Your task to perform on an android device: Open eBay Image 0: 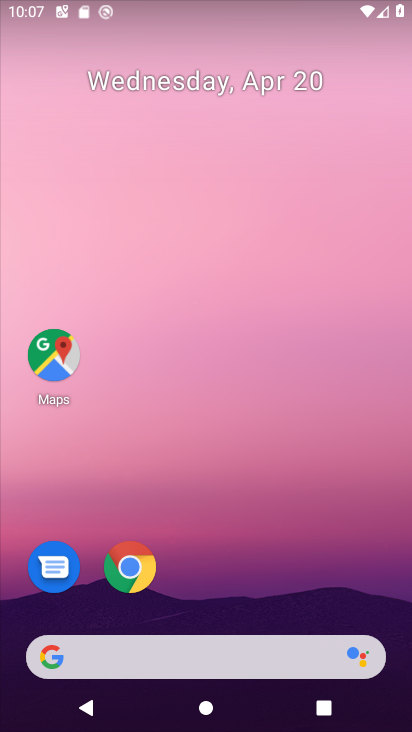
Step 0: drag from (332, 584) to (311, 177)
Your task to perform on an android device: Open eBay Image 1: 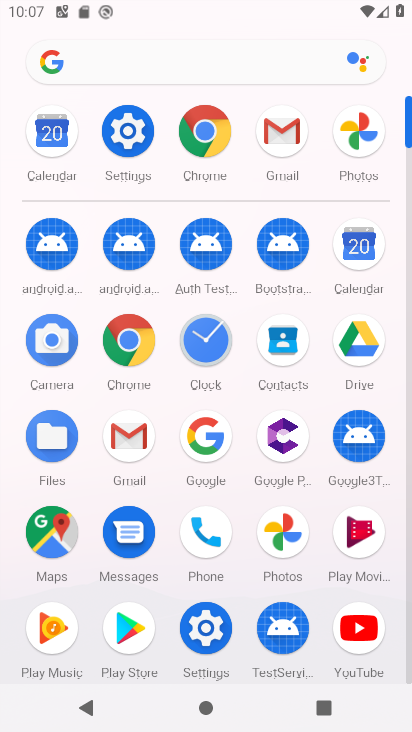
Step 1: click (130, 351)
Your task to perform on an android device: Open eBay Image 2: 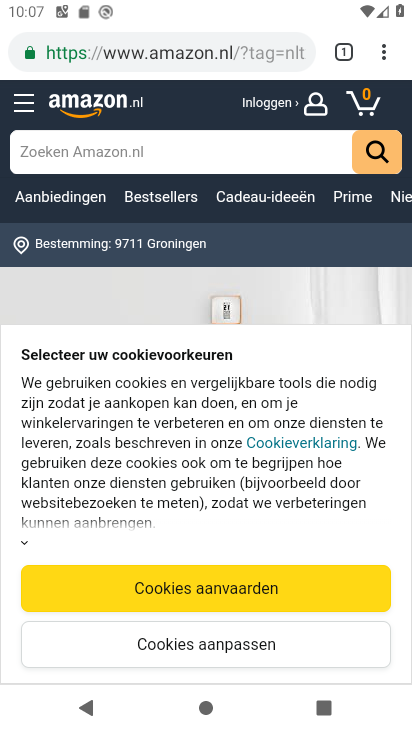
Step 2: press back button
Your task to perform on an android device: Open eBay Image 3: 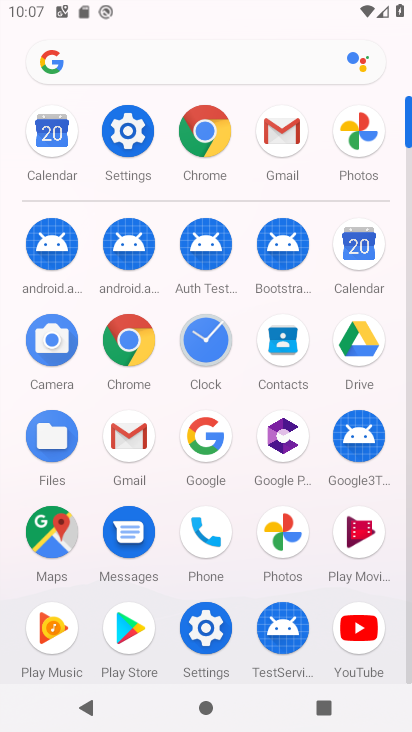
Step 3: click (104, 339)
Your task to perform on an android device: Open eBay Image 4: 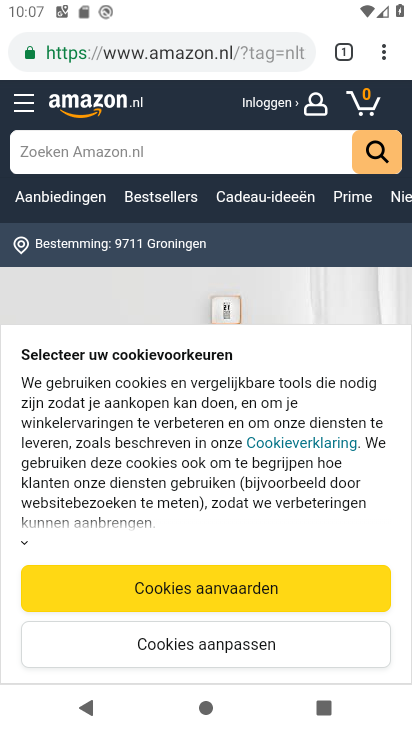
Step 4: click (260, 47)
Your task to perform on an android device: Open eBay Image 5: 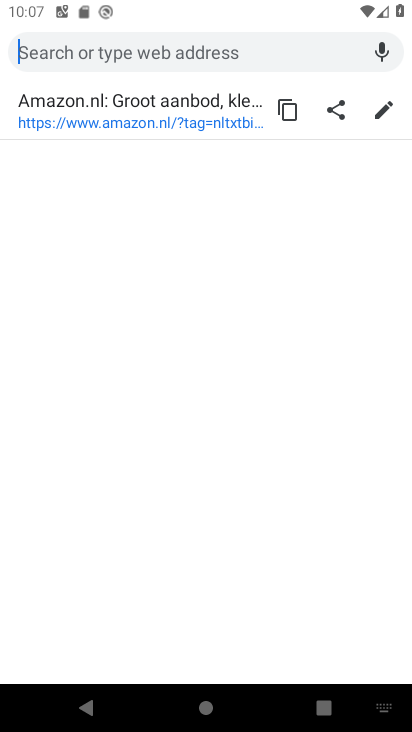
Step 5: type "ebay"
Your task to perform on an android device: Open eBay Image 6: 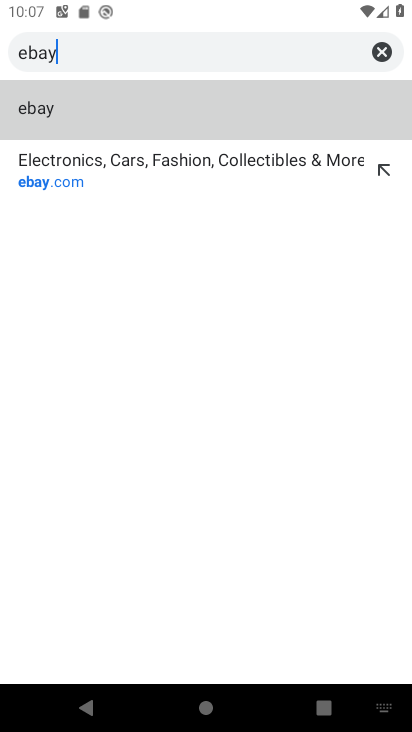
Step 6: click (275, 113)
Your task to perform on an android device: Open eBay Image 7: 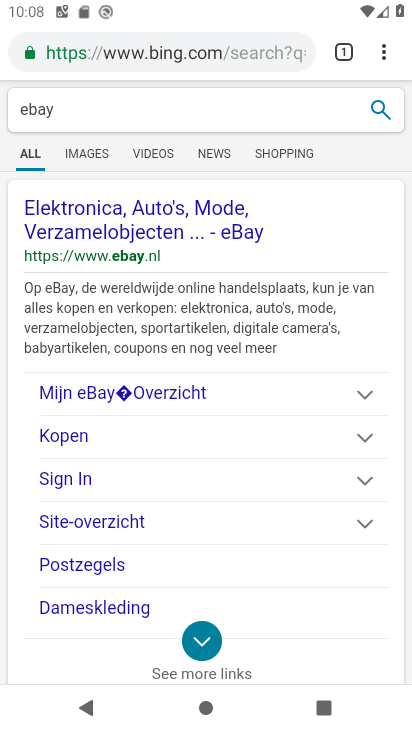
Step 7: task complete